Your task to perform on an android device: Check the weather Image 0: 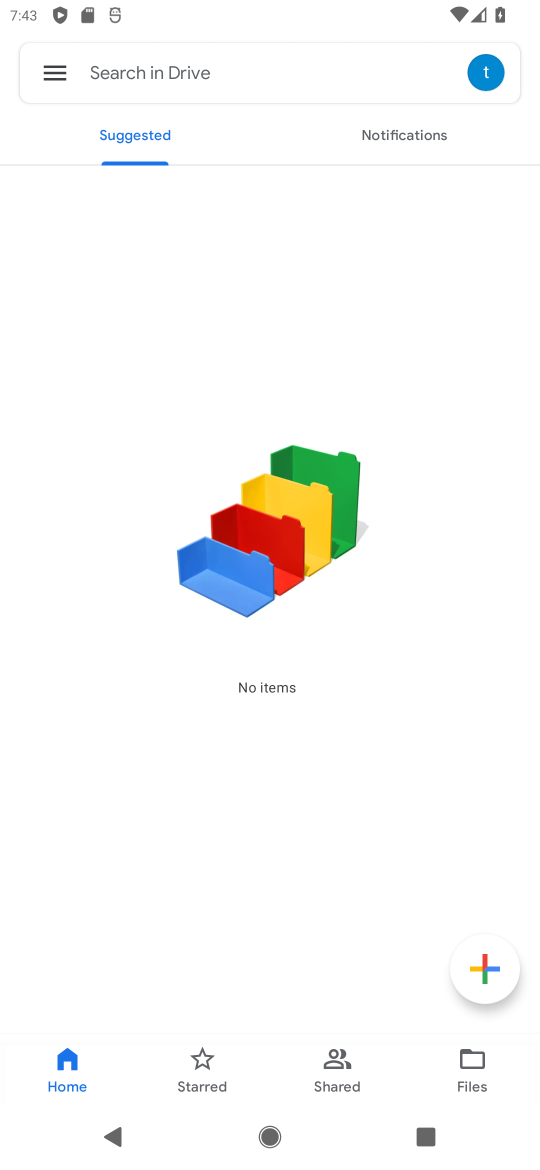
Step 0: press home button
Your task to perform on an android device: Check the weather Image 1: 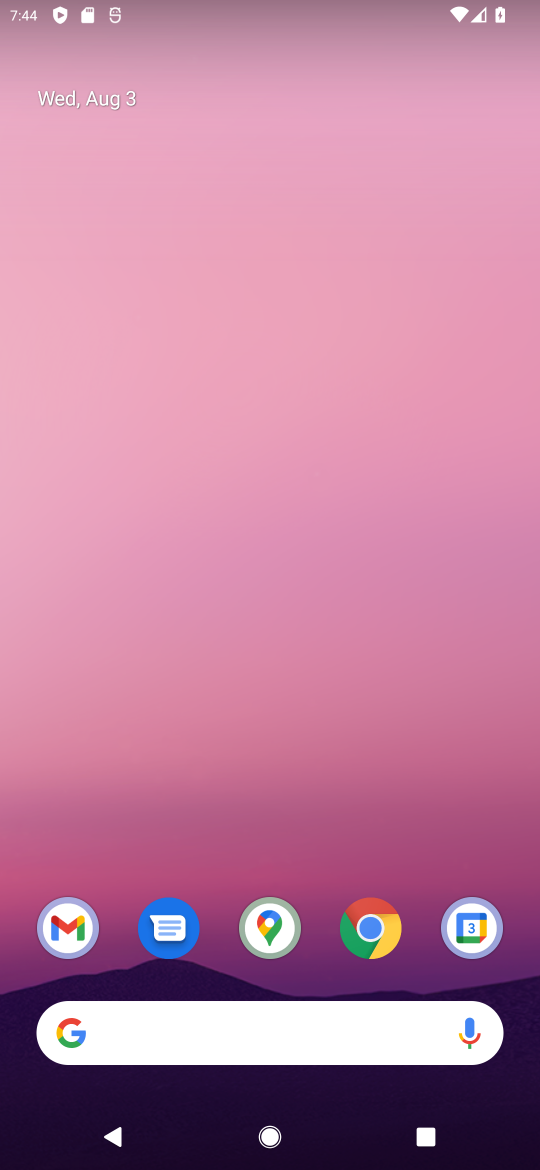
Step 1: click (391, 927)
Your task to perform on an android device: Check the weather Image 2: 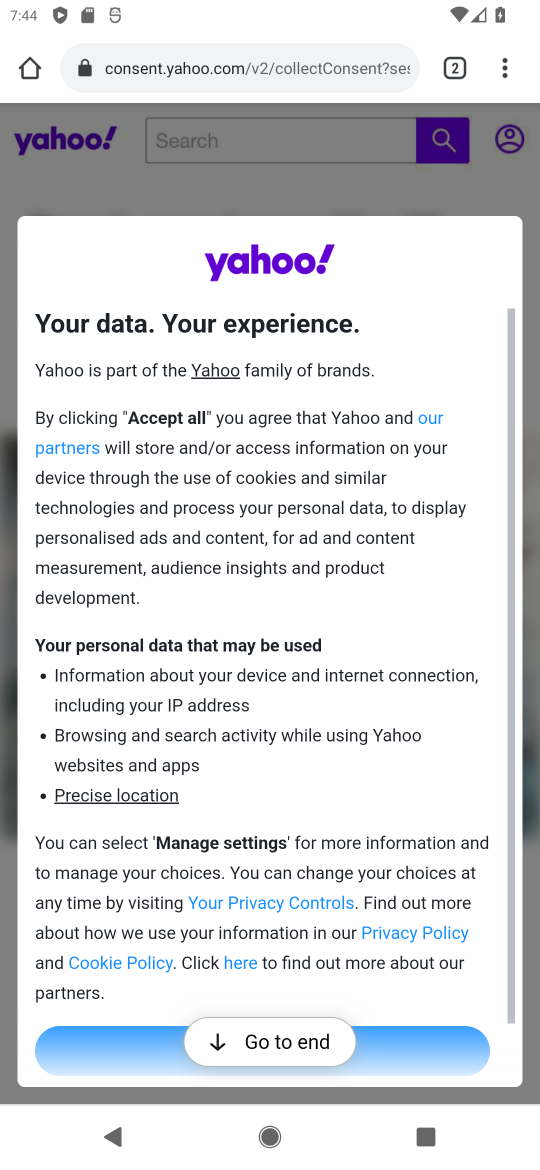
Step 2: click (212, 62)
Your task to perform on an android device: Check the weather Image 3: 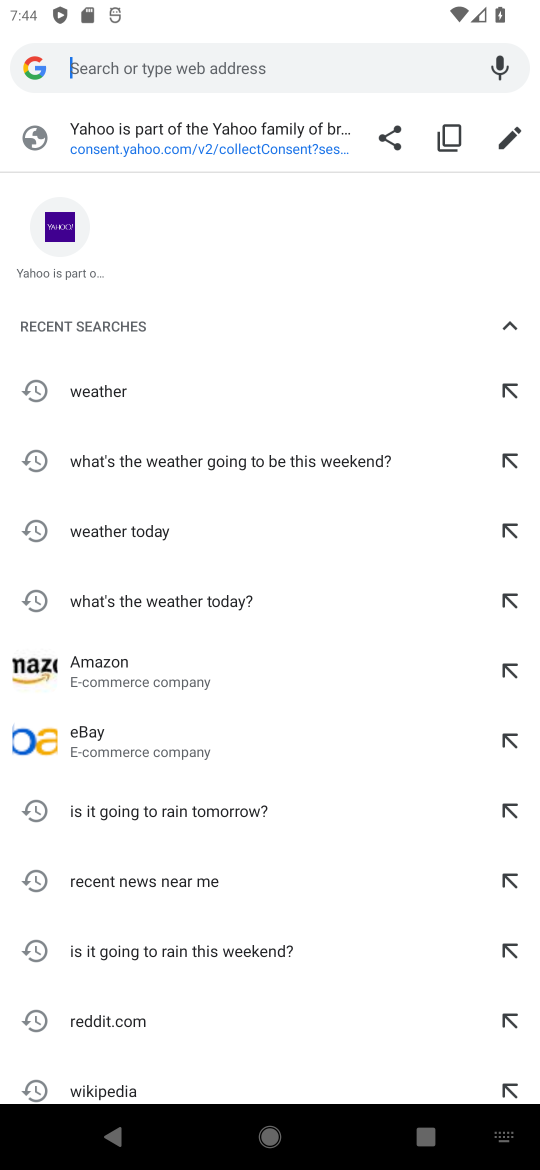
Step 3: type "Check the weather"
Your task to perform on an android device: Check the weather Image 4: 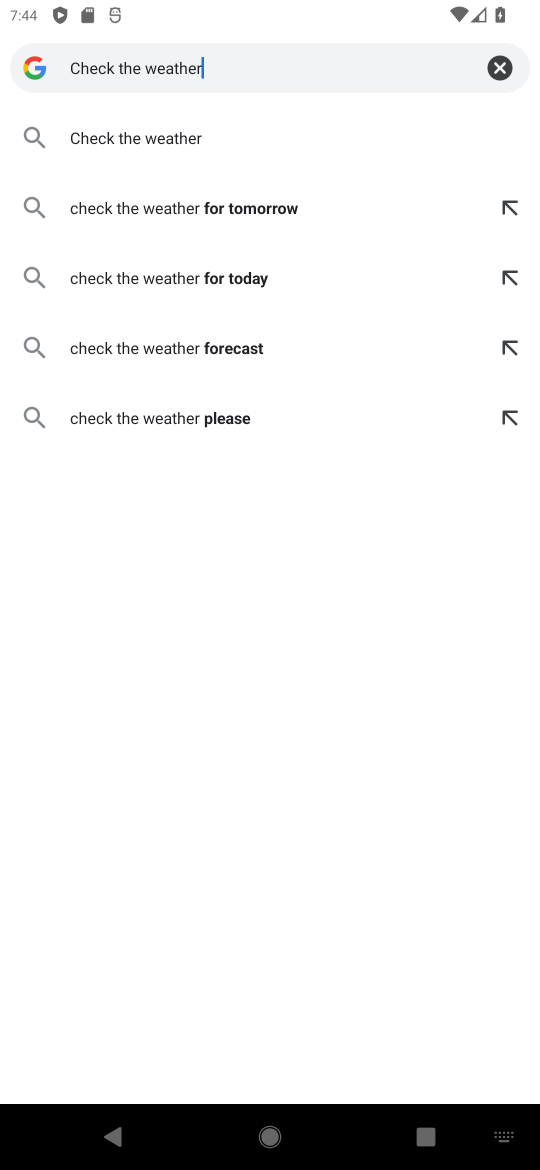
Step 4: click (234, 138)
Your task to perform on an android device: Check the weather Image 5: 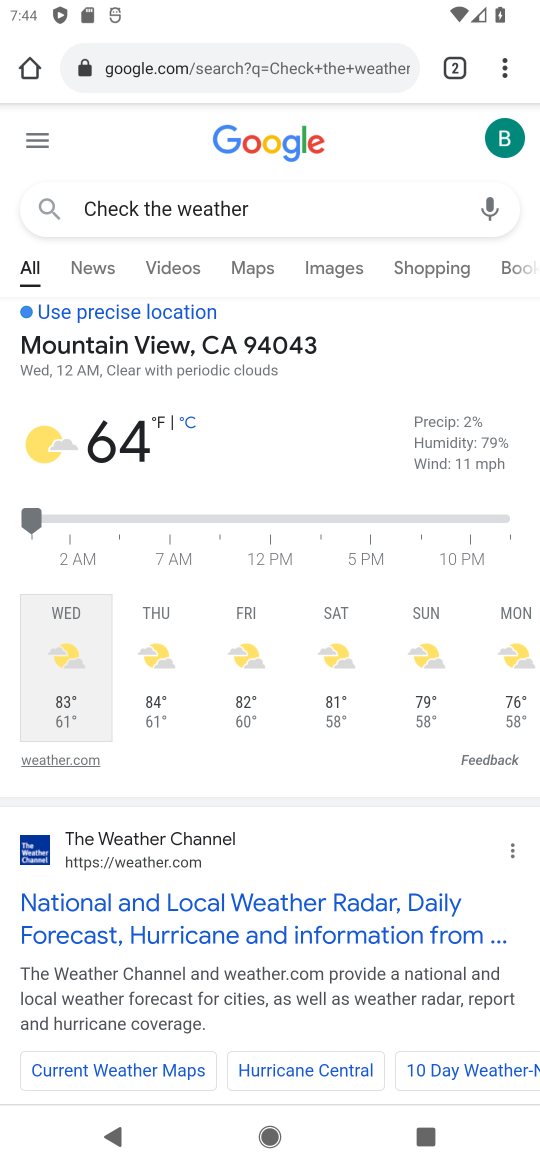
Step 5: task complete